Your task to perform on an android device: turn on location history Image 0: 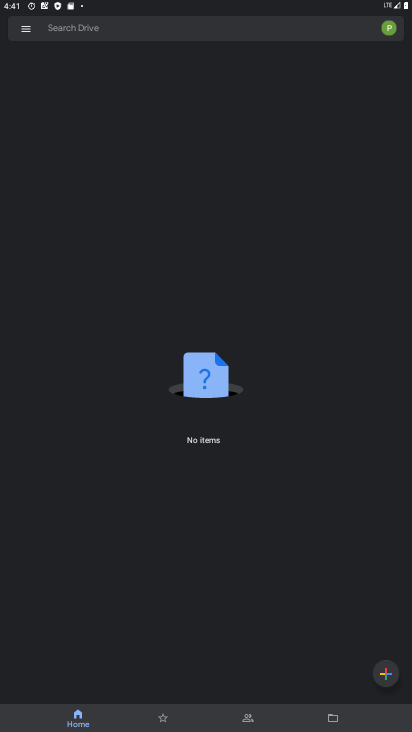
Step 0: press home button
Your task to perform on an android device: turn on location history Image 1: 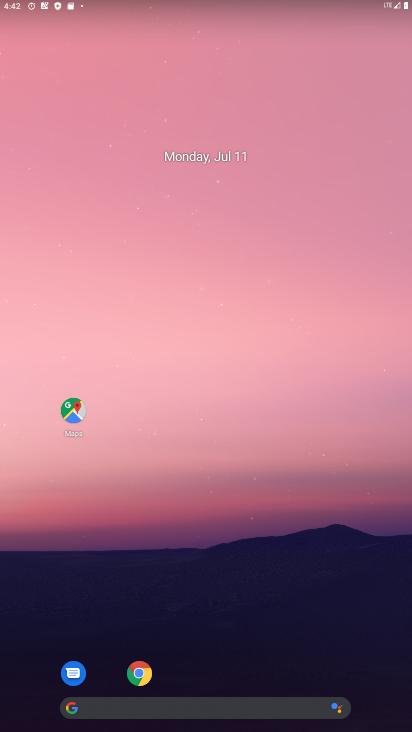
Step 1: drag from (208, 705) to (267, 235)
Your task to perform on an android device: turn on location history Image 2: 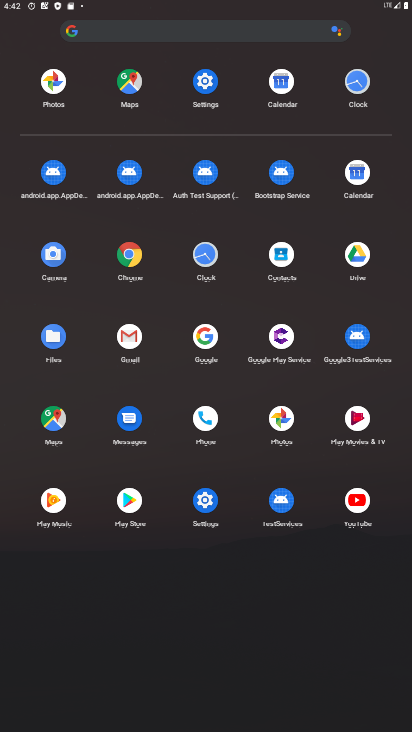
Step 2: click (205, 81)
Your task to perform on an android device: turn on location history Image 3: 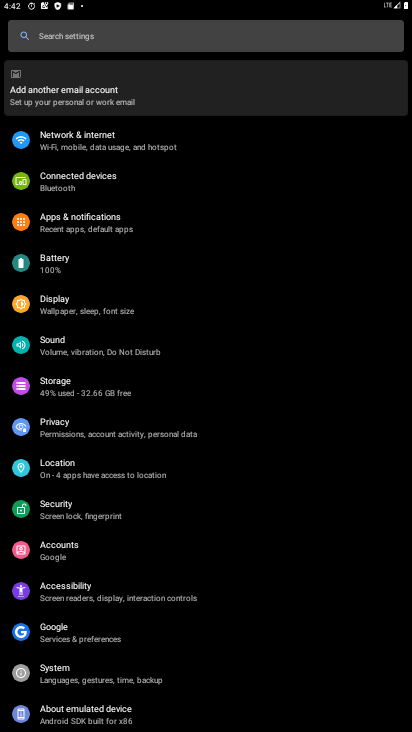
Step 3: click (67, 471)
Your task to perform on an android device: turn on location history Image 4: 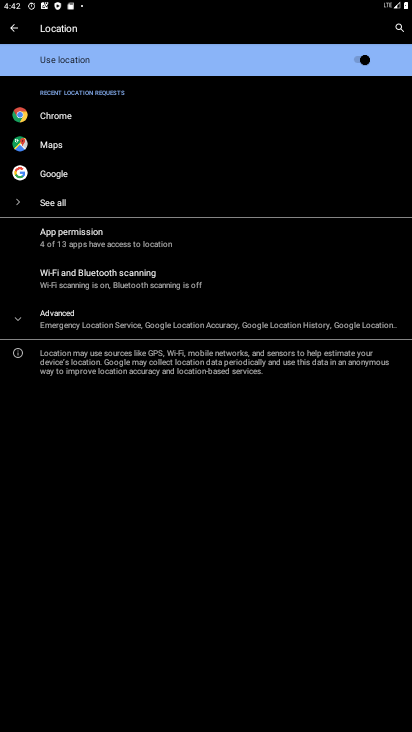
Step 4: click (88, 325)
Your task to perform on an android device: turn on location history Image 5: 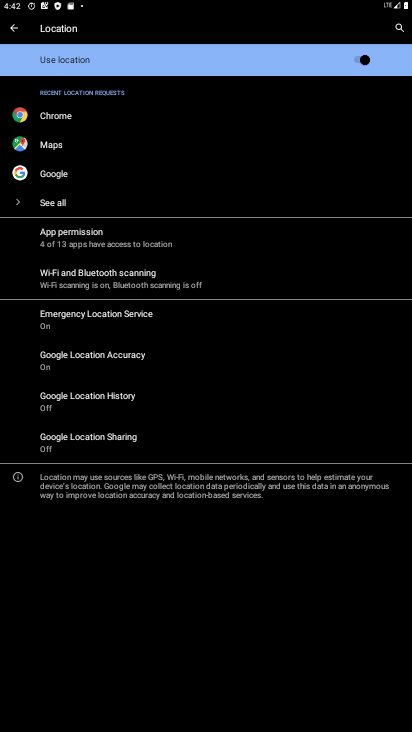
Step 5: click (98, 402)
Your task to perform on an android device: turn on location history Image 6: 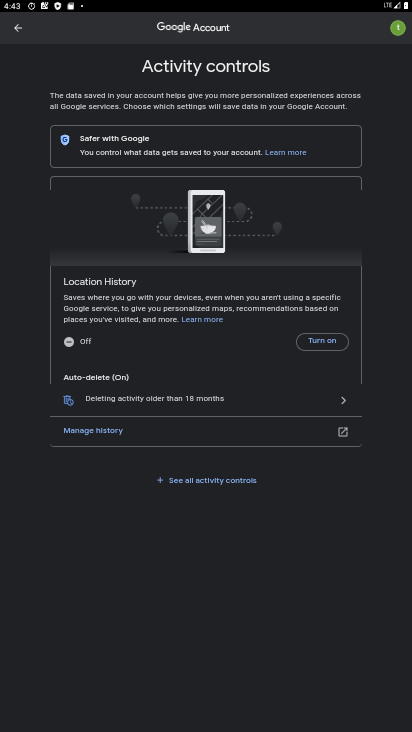
Step 6: click (324, 342)
Your task to perform on an android device: turn on location history Image 7: 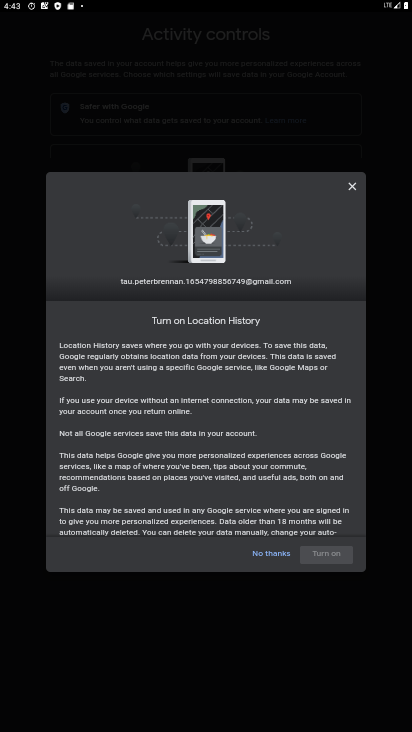
Step 7: drag from (286, 476) to (314, 327)
Your task to perform on an android device: turn on location history Image 8: 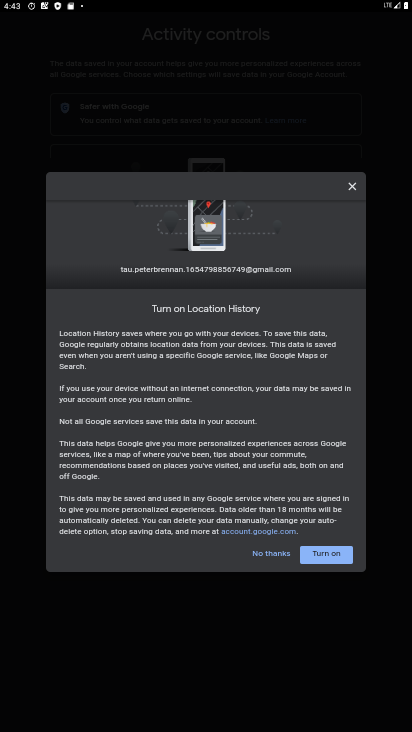
Step 8: click (328, 555)
Your task to perform on an android device: turn on location history Image 9: 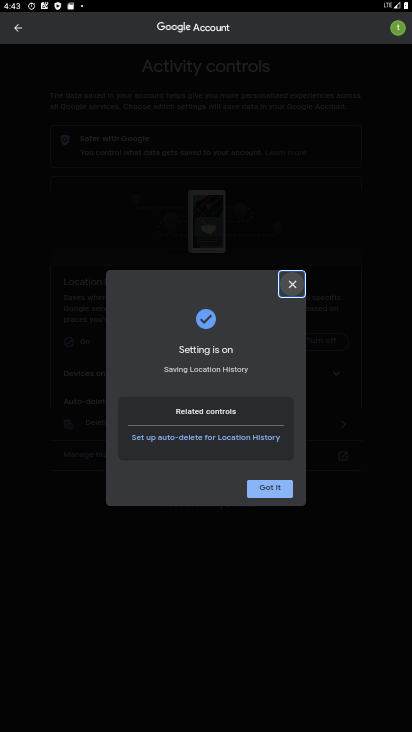
Step 9: click (274, 483)
Your task to perform on an android device: turn on location history Image 10: 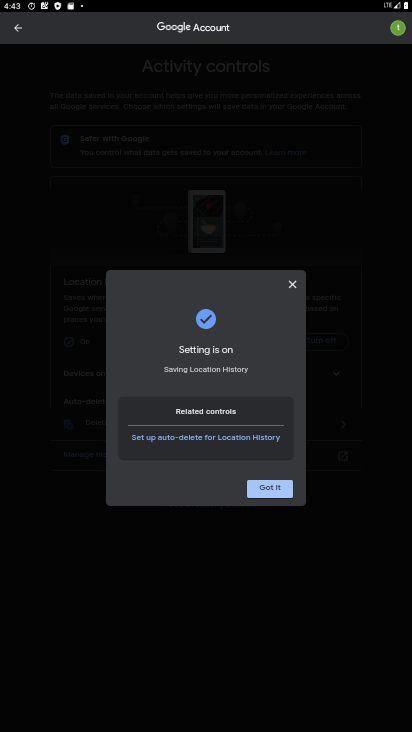
Step 10: click (271, 487)
Your task to perform on an android device: turn on location history Image 11: 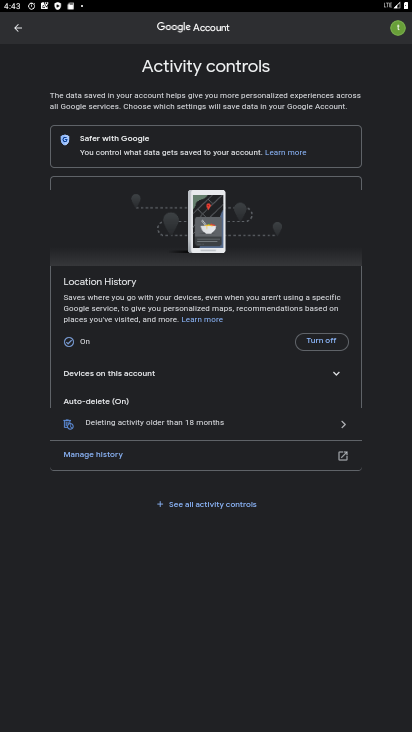
Step 11: task complete